Your task to perform on an android device: Open notification settings Image 0: 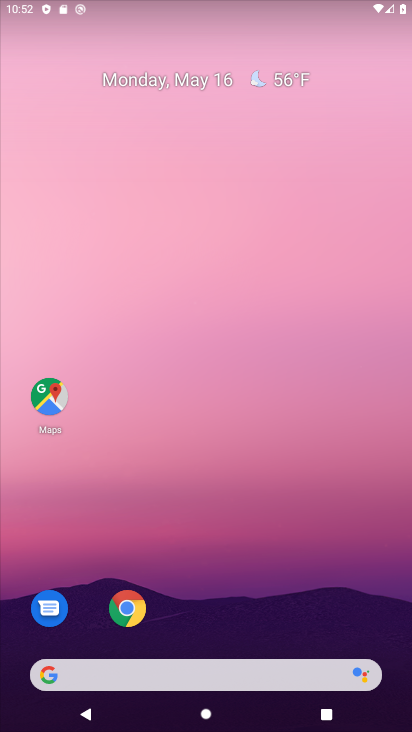
Step 0: click (355, 289)
Your task to perform on an android device: Open notification settings Image 1: 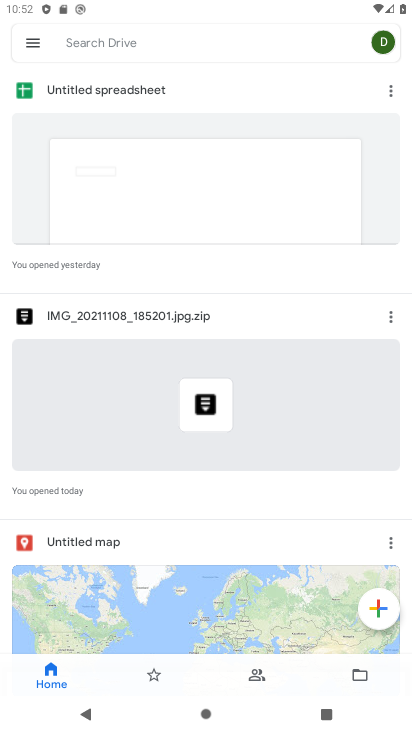
Step 1: press home button
Your task to perform on an android device: Open notification settings Image 2: 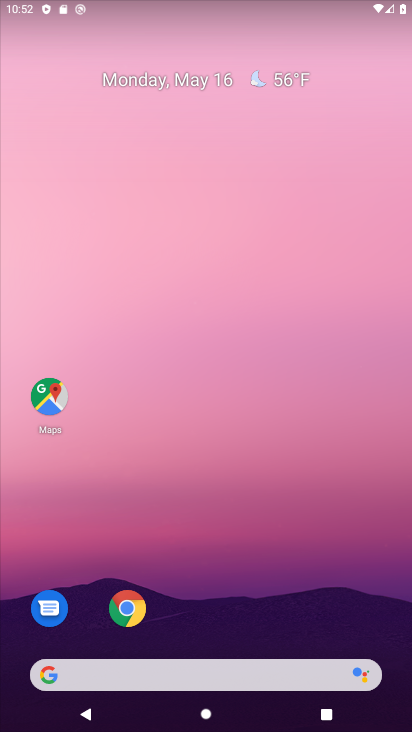
Step 2: drag from (408, 637) to (343, 133)
Your task to perform on an android device: Open notification settings Image 3: 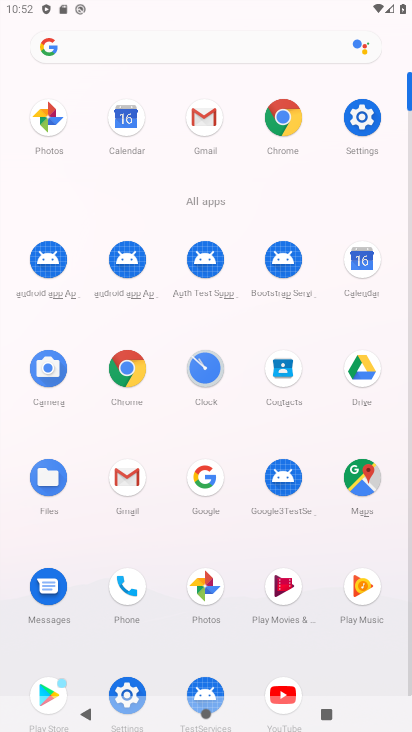
Step 3: click (352, 121)
Your task to perform on an android device: Open notification settings Image 4: 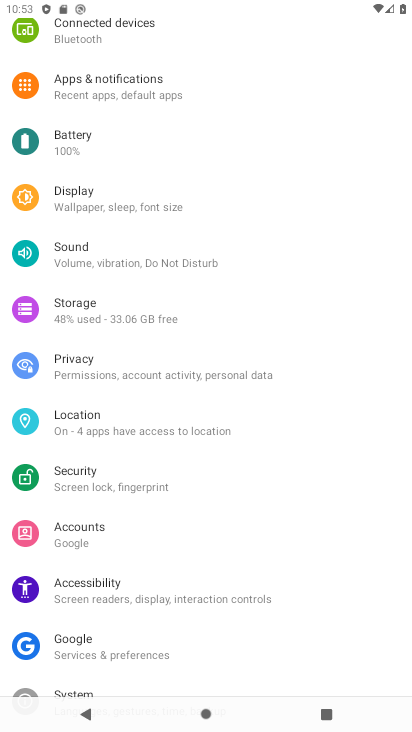
Step 4: drag from (167, 181) to (214, 401)
Your task to perform on an android device: Open notification settings Image 5: 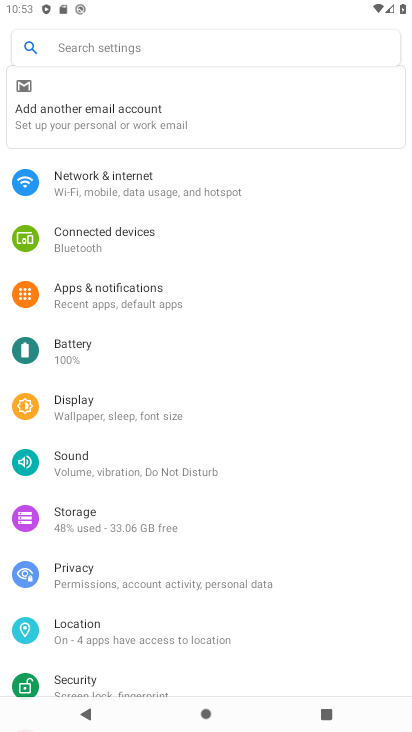
Step 5: click (149, 289)
Your task to perform on an android device: Open notification settings Image 6: 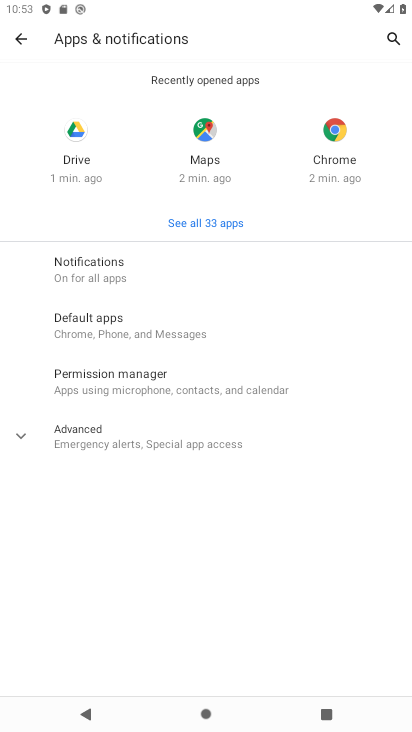
Step 6: click (140, 266)
Your task to perform on an android device: Open notification settings Image 7: 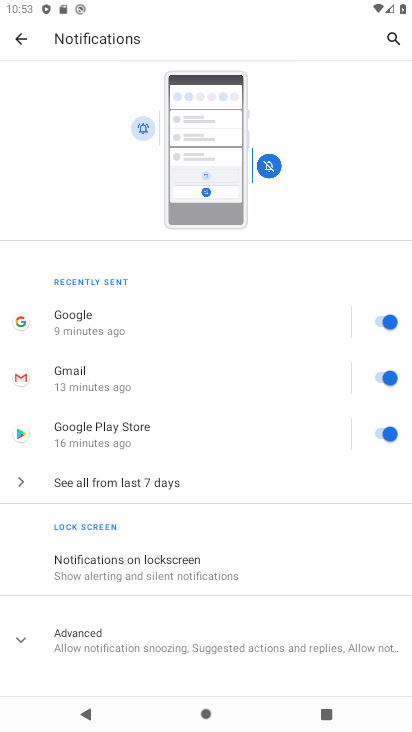
Step 7: task complete